Your task to perform on an android device: What is the recent news? Image 0: 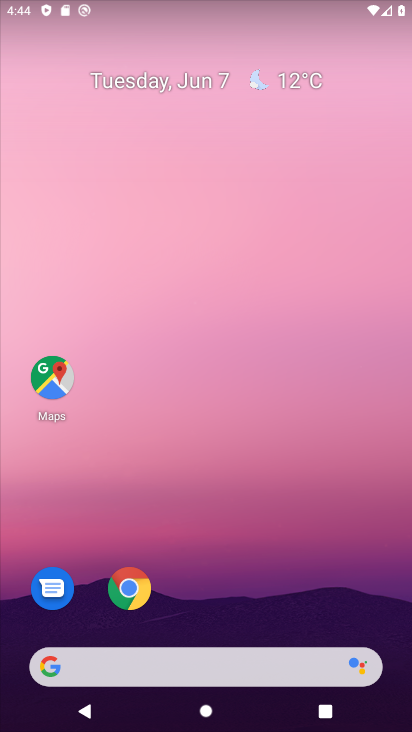
Step 0: drag from (210, 619) to (217, 54)
Your task to perform on an android device: What is the recent news? Image 1: 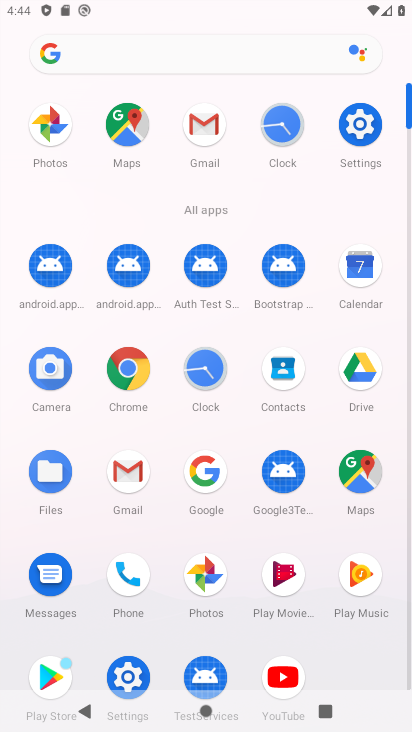
Step 1: click (205, 497)
Your task to perform on an android device: What is the recent news? Image 2: 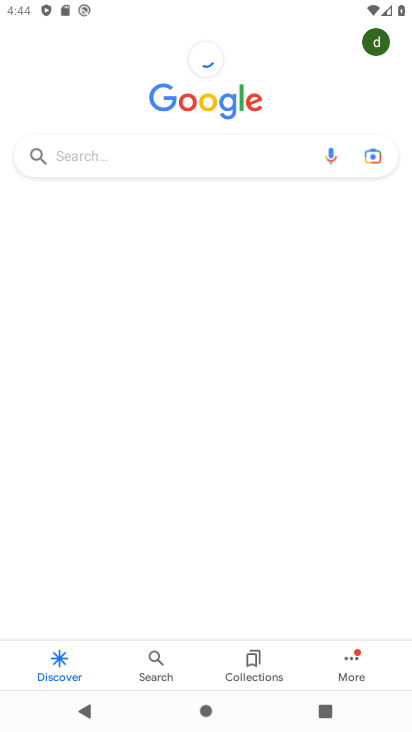
Step 2: click (89, 157)
Your task to perform on an android device: What is the recent news? Image 3: 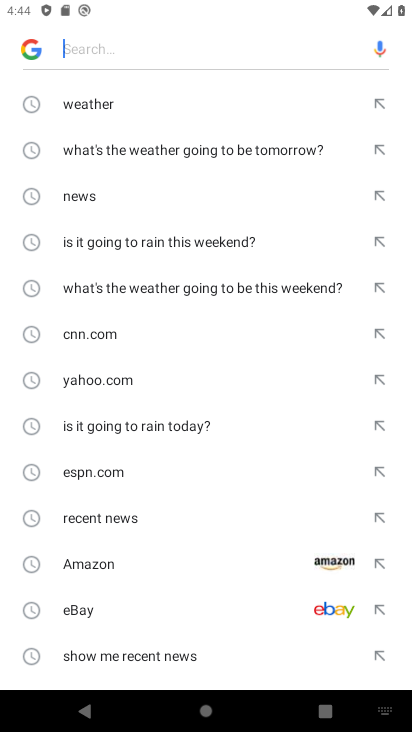
Step 3: click (113, 521)
Your task to perform on an android device: What is the recent news? Image 4: 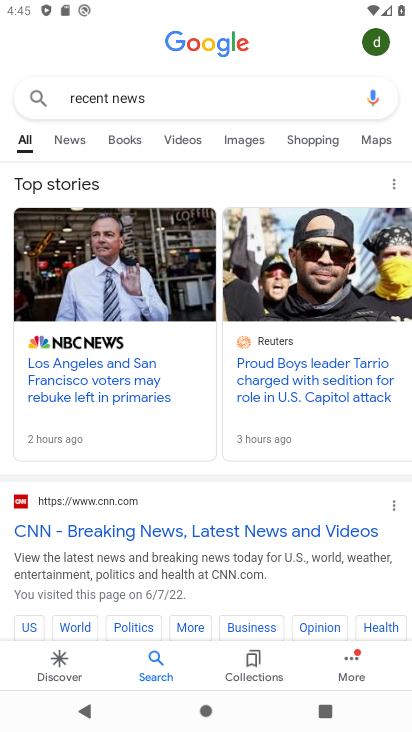
Step 4: task complete